Your task to perform on an android device: Go to privacy settings Image 0: 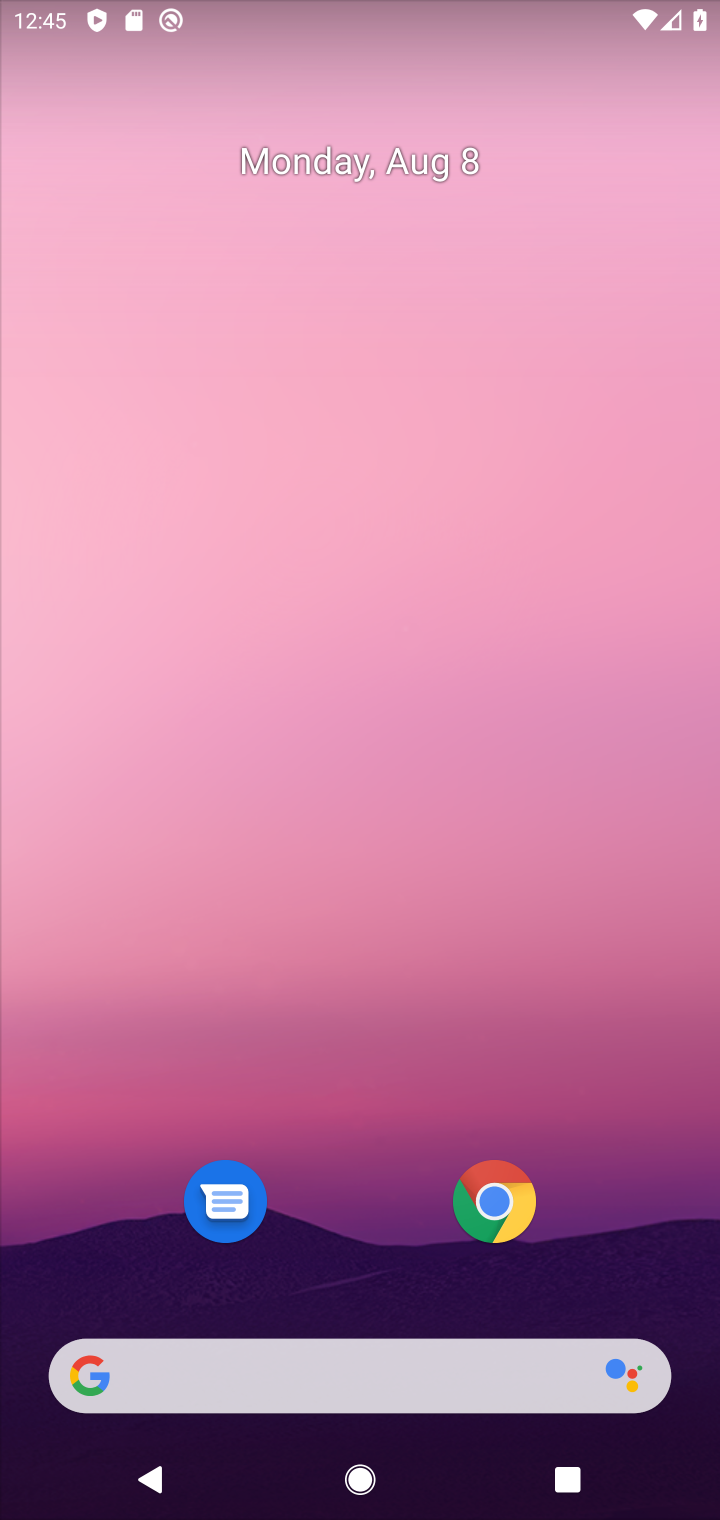
Step 0: press home button
Your task to perform on an android device: Go to privacy settings Image 1: 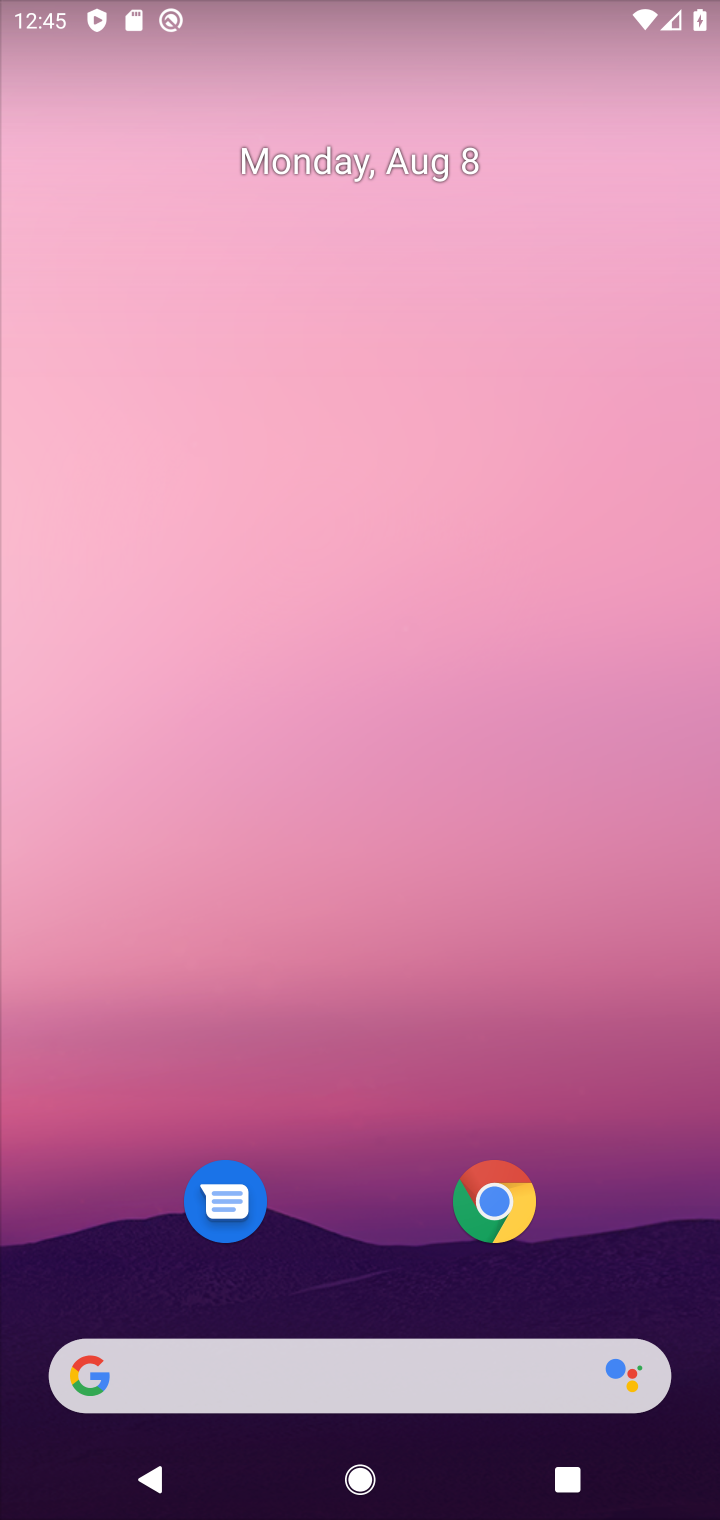
Step 1: drag from (379, 1182) to (464, 368)
Your task to perform on an android device: Go to privacy settings Image 2: 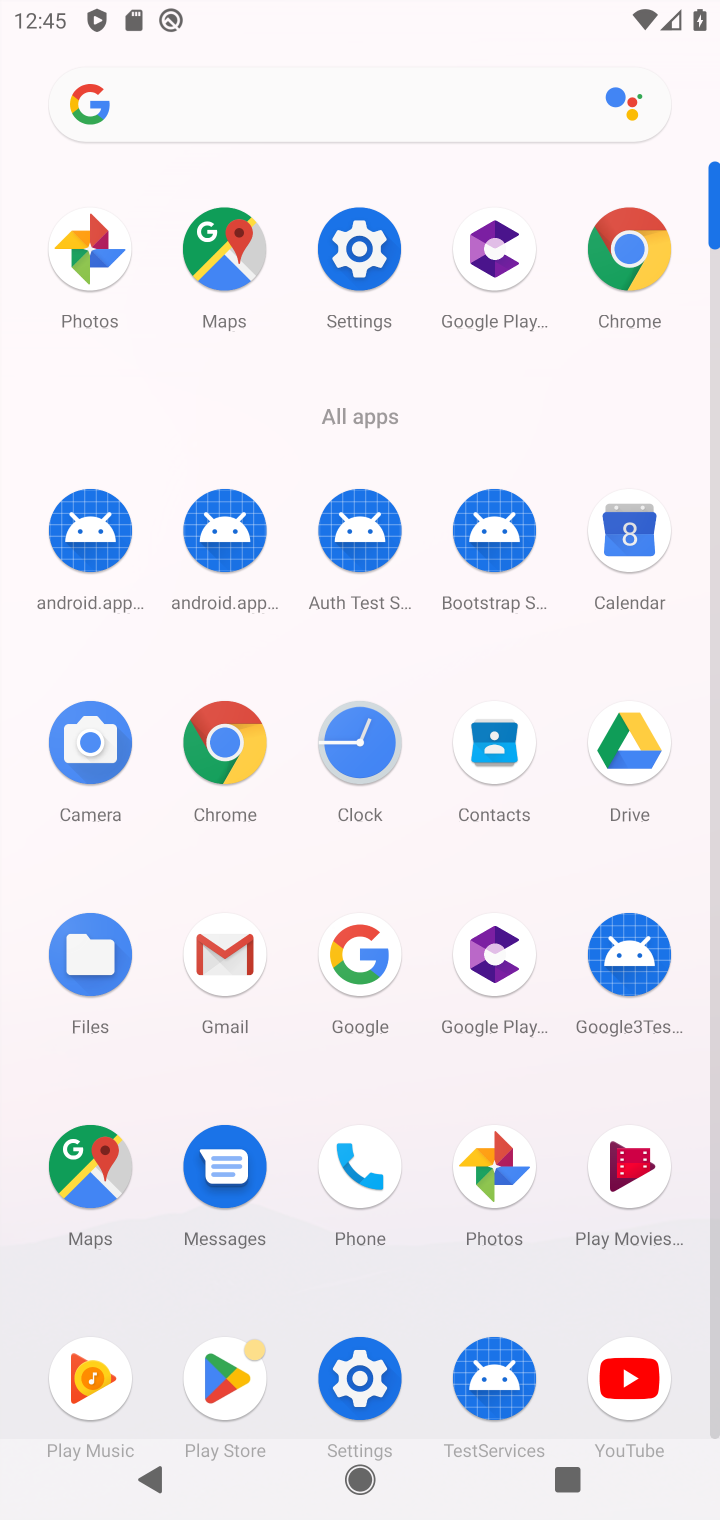
Step 2: click (369, 261)
Your task to perform on an android device: Go to privacy settings Image 3: 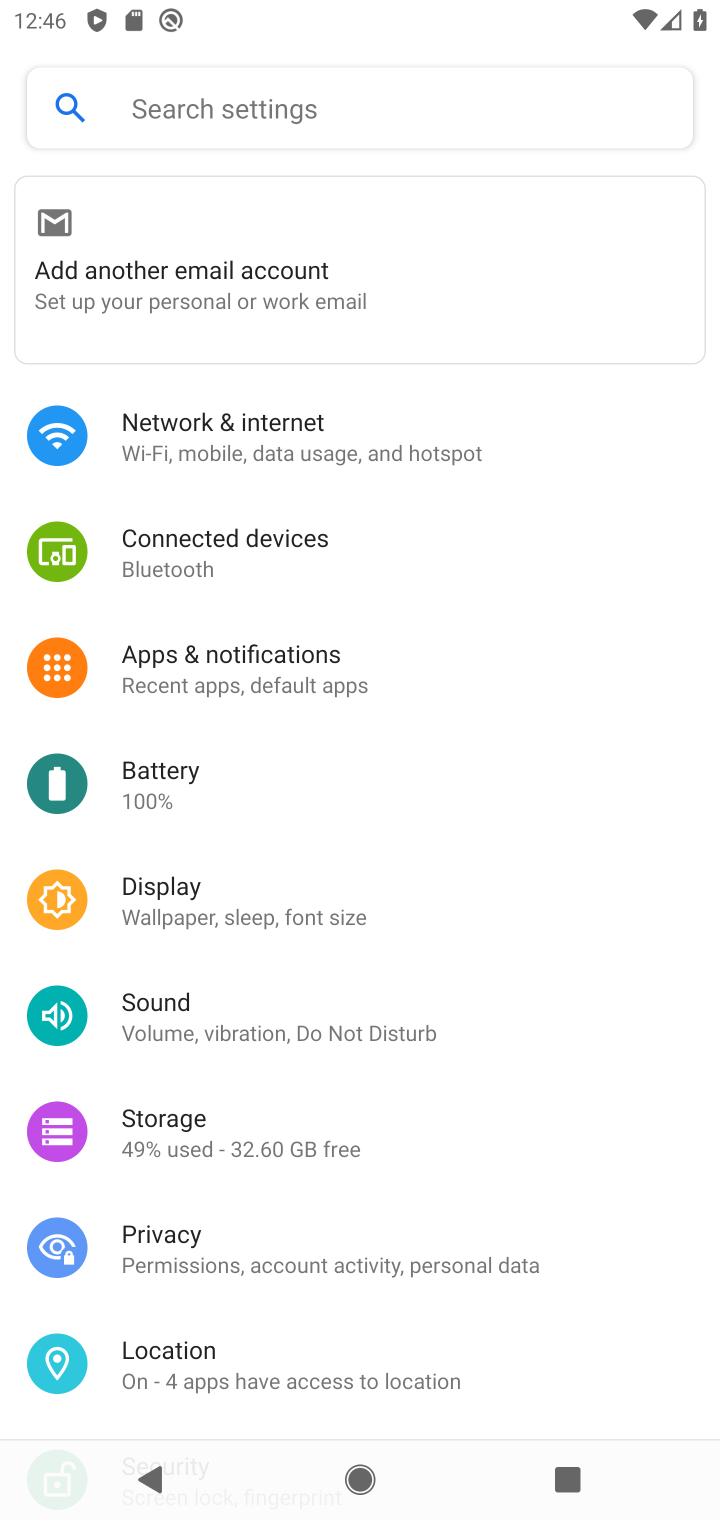
Step 3: click (191, 1243)
Your task to perform on an android device: Go to privacy settings Image 4: 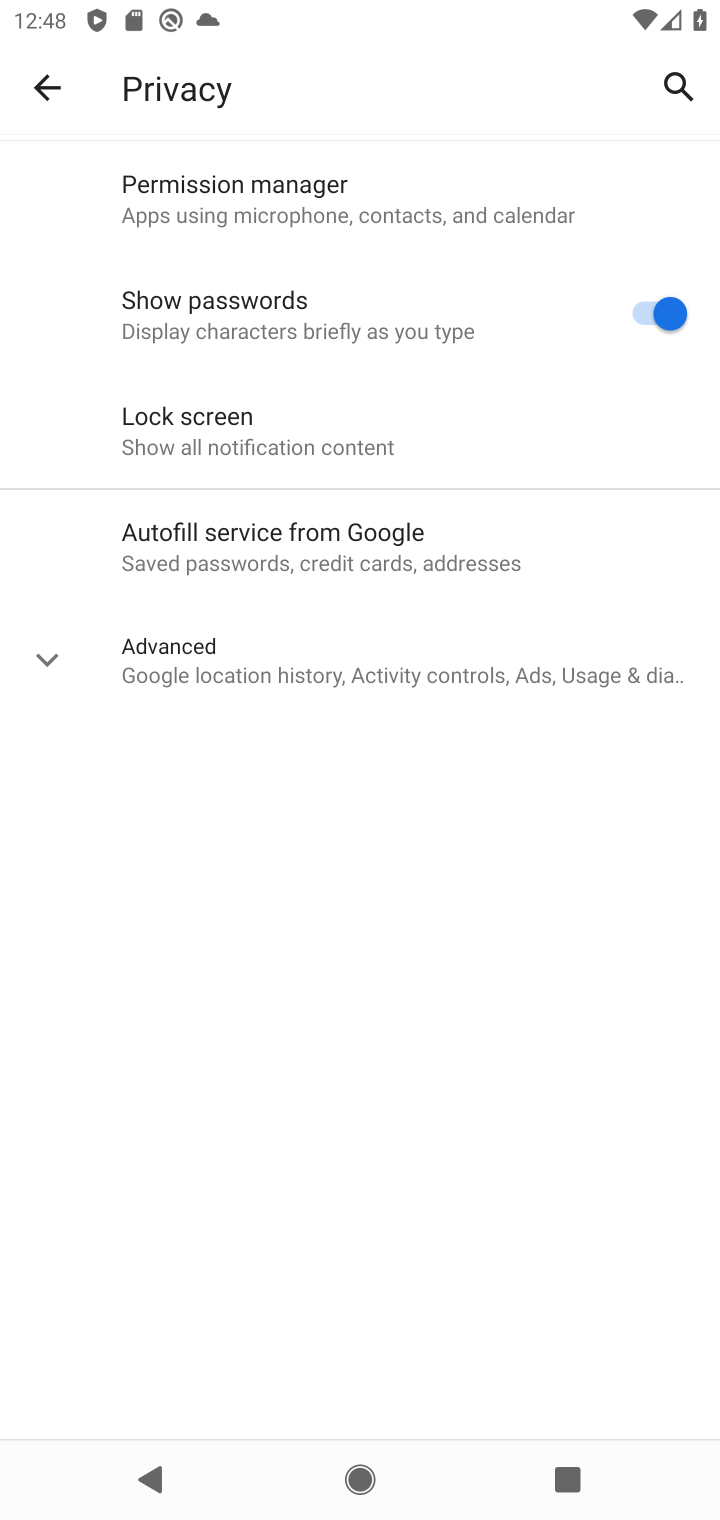
Step 4: task complete